Your task to perform on an android device: change timer sound Image 0: 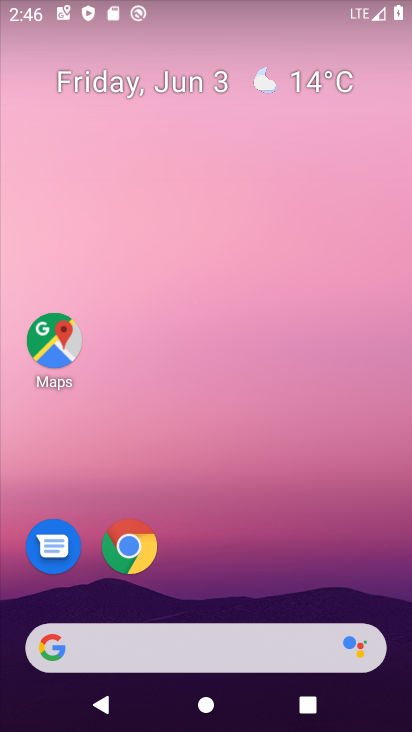
Step 0: drag from (174, 575) to (181, 69)
Your task to perform on an android device: change timer sound Image 1: 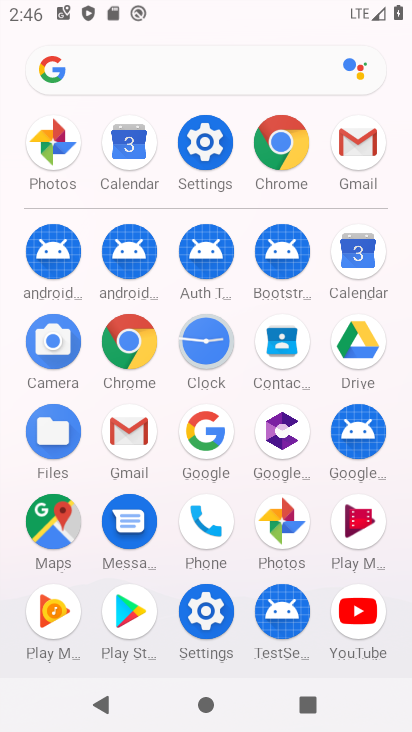
Step 1: click (221, 349)
Your task to perform on an android device: change timer sound Image 2: 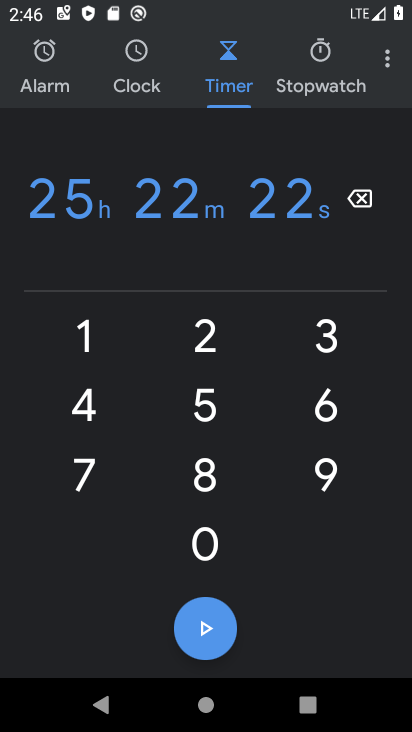
Step 2: click (384, 65)
Your task to perform on an android device: change timer sound Image 3: 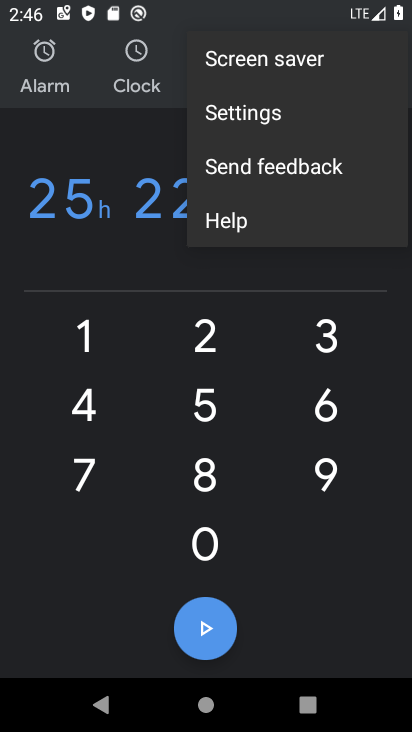
Step 3: click (229, 124)
Your task to perform on an android device: change timer sound Image 4: 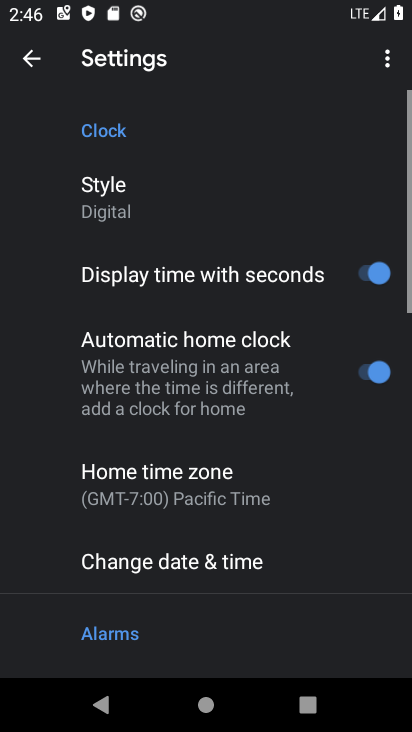
Step 4: drag from (154, 439) to (167, 92)
Your task to perform on an android device: change timer sound Image 5: 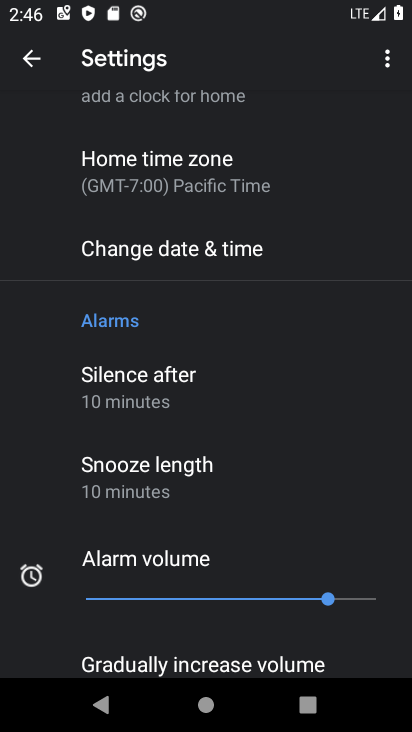
Step 5: drag from (194, 556) to (231, 220)
Your task to perform on an android device: change timer sound Image 6: 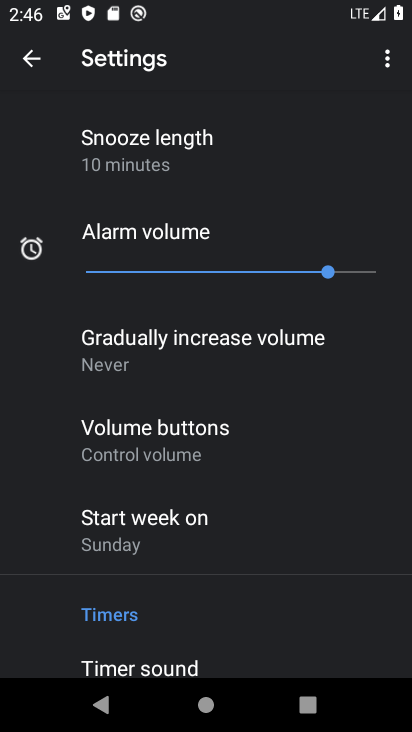
Step 6: drag from (174, 582) to (233, 124)
Your task to perform on an android device: change timer sound Image 7: 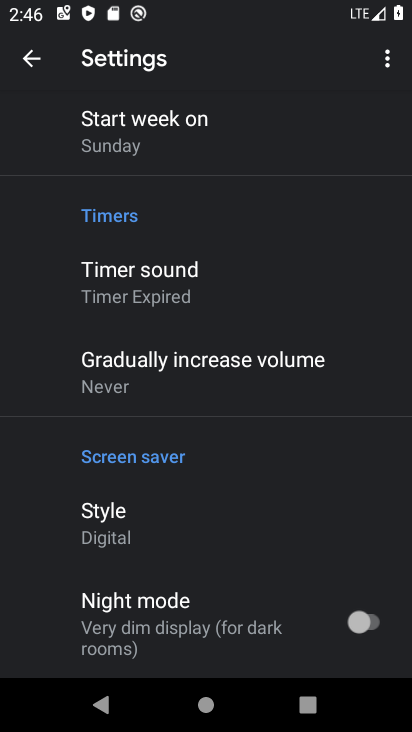
Step 7: click (100, 291)
Your task to perform on an android device: change timer sound Image 8: 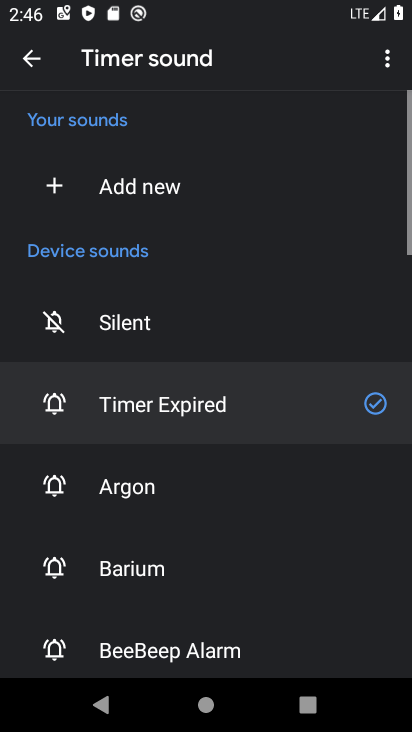
Step 8: click (117, 506)
Your task to perform on an android device: change timer sound Image 9: 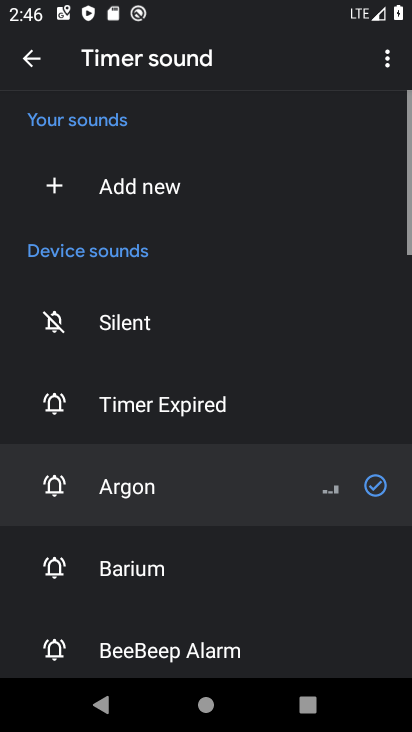
Step 9: task complete